Your task to perform on an android device: open app "Calculator" Image 0: 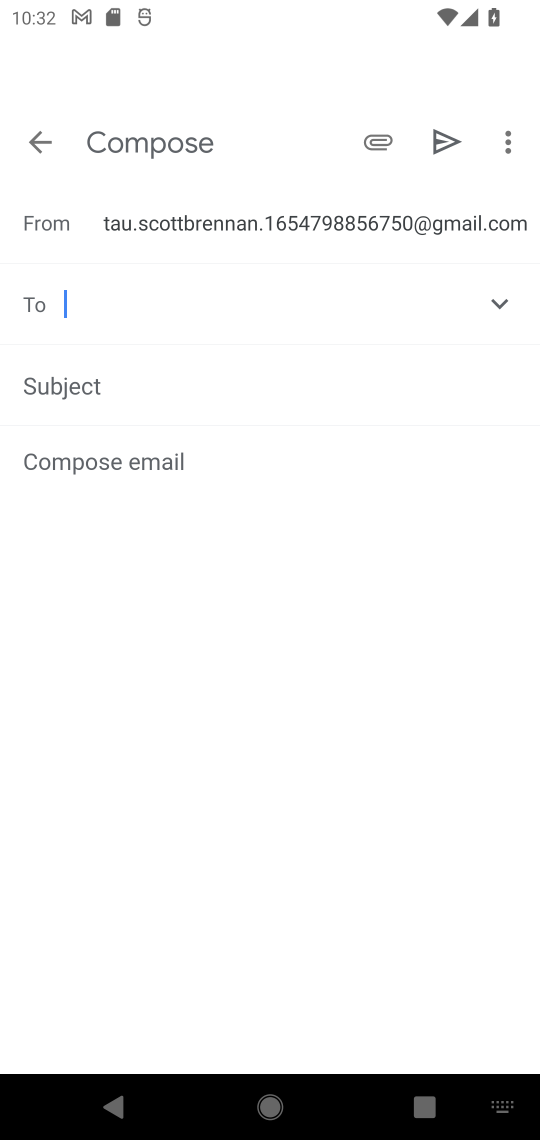
Step 0: press home button
Your task to perform on an android device: open app "Calculator" Image 1: 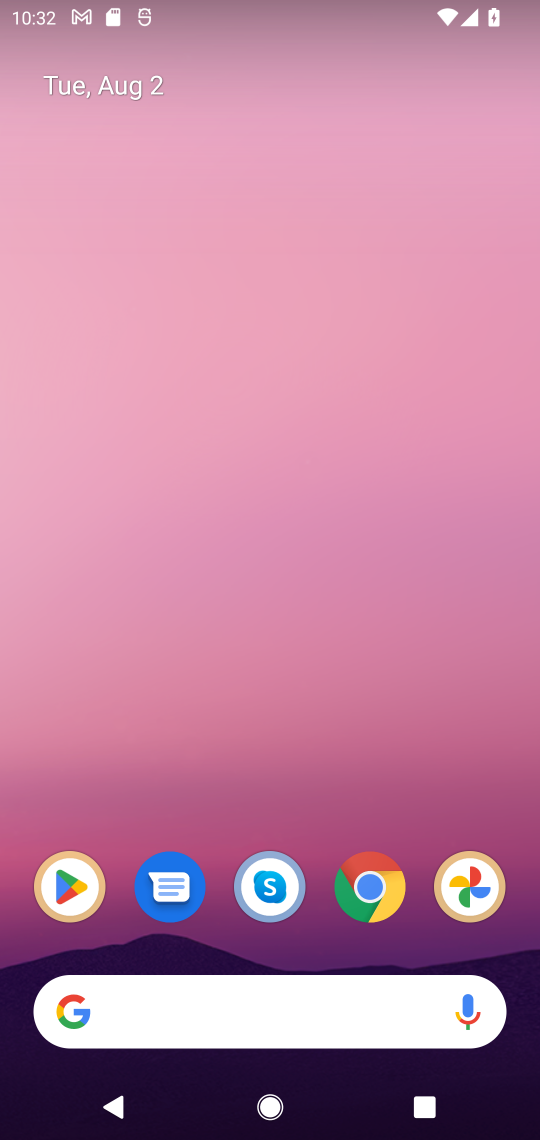
Step 1: drag from (216, 946) to (243, 10)
Your task to perform on an android device: open app "Calculator" Image 2: 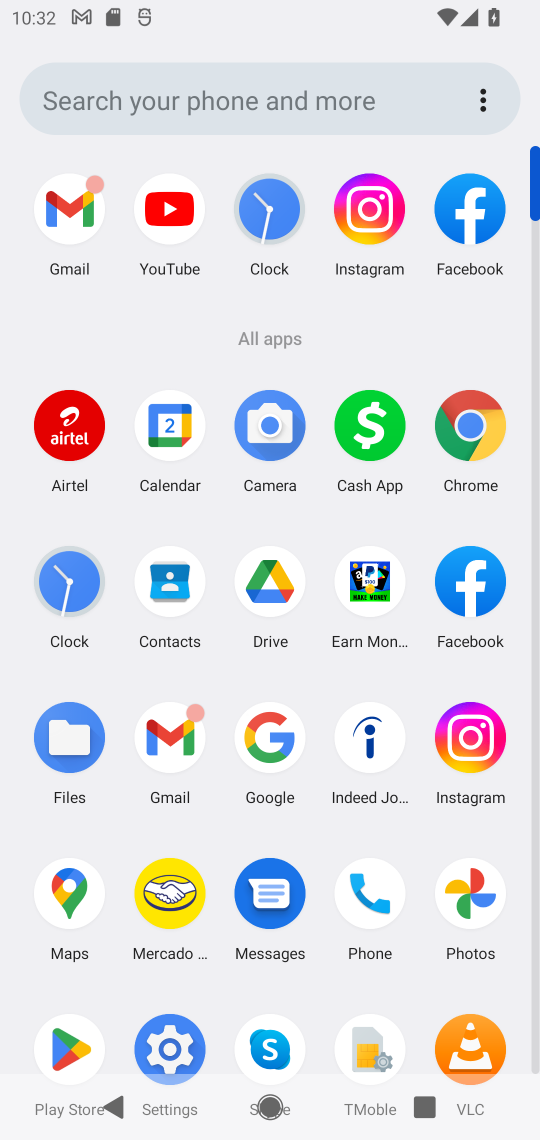
Step 2: click (76, 1052)
Your task to perform on an android device: open app "Calculator" Image 3: 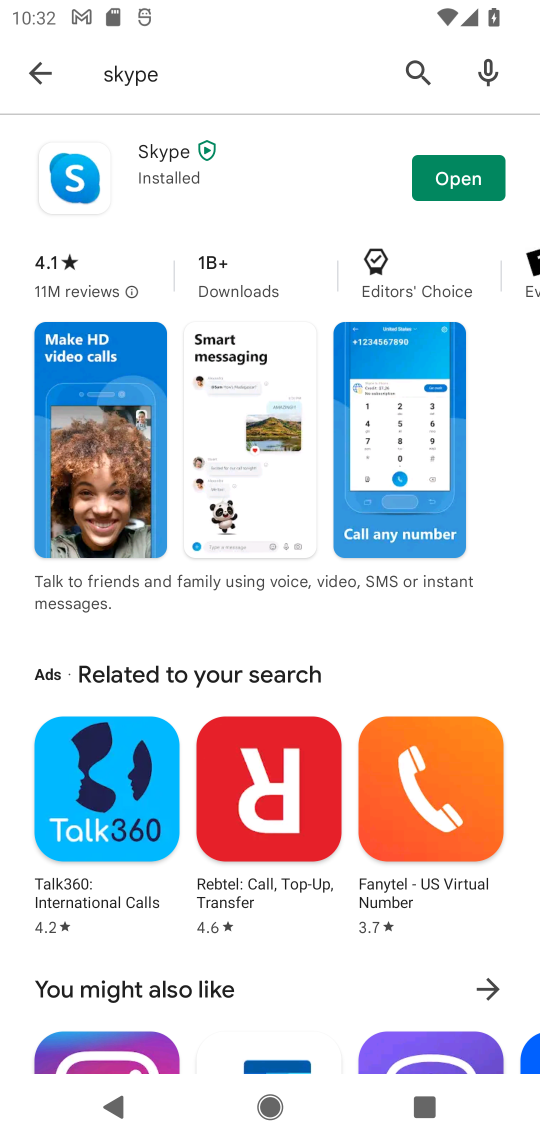
Step 3: click (27, 64)
Your task to perform on an android device: open app "Calculator" Image 4: 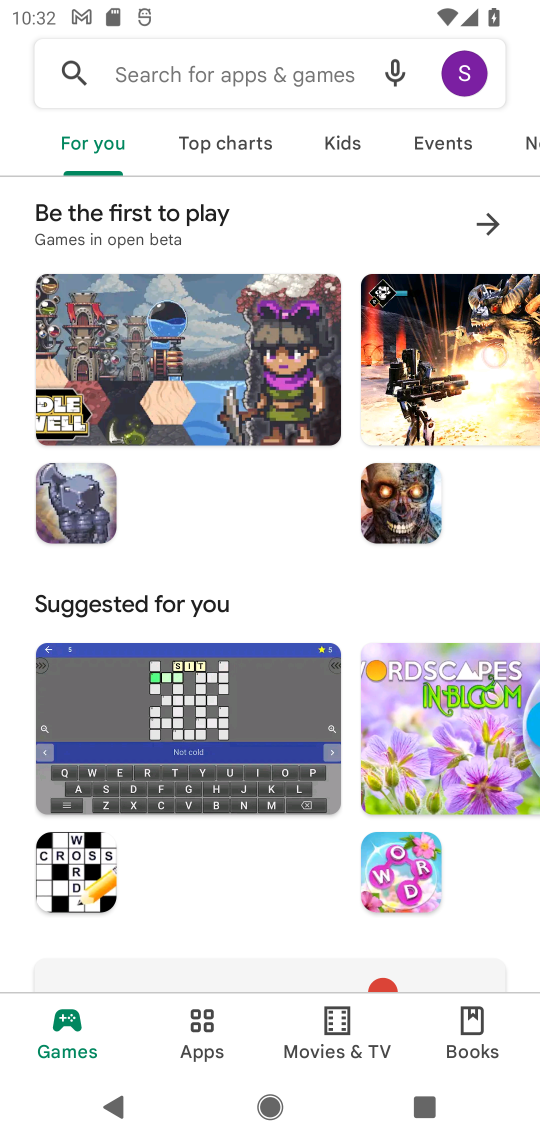
Step 4: click (135, 75)
Your task to perform on an android device: open app "Calculator" Image 5: 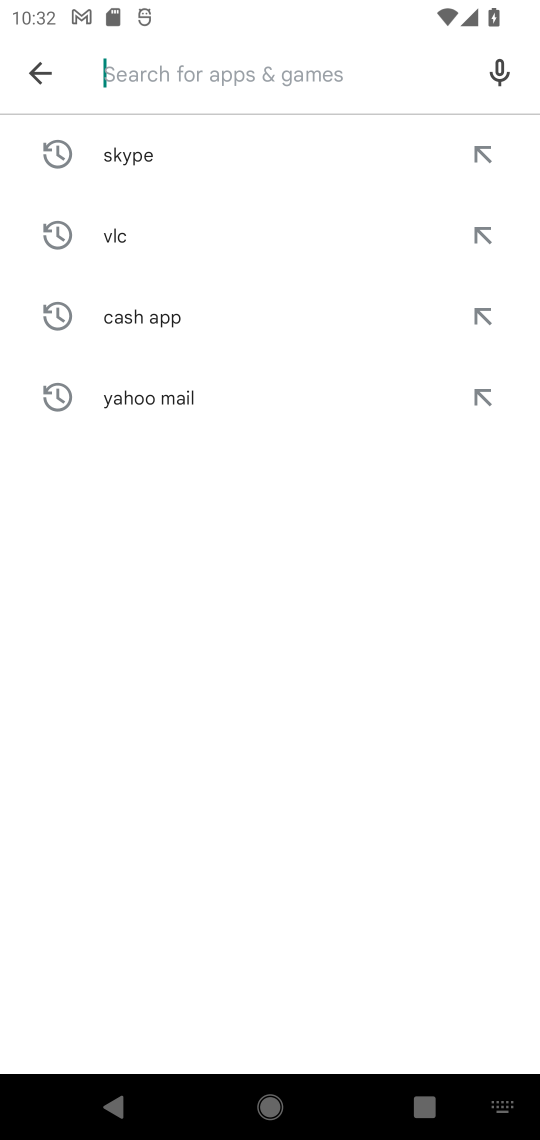
Step 5: click (498, 1072)
Your task to perform on an android device: open app "Calculator" Image 6: 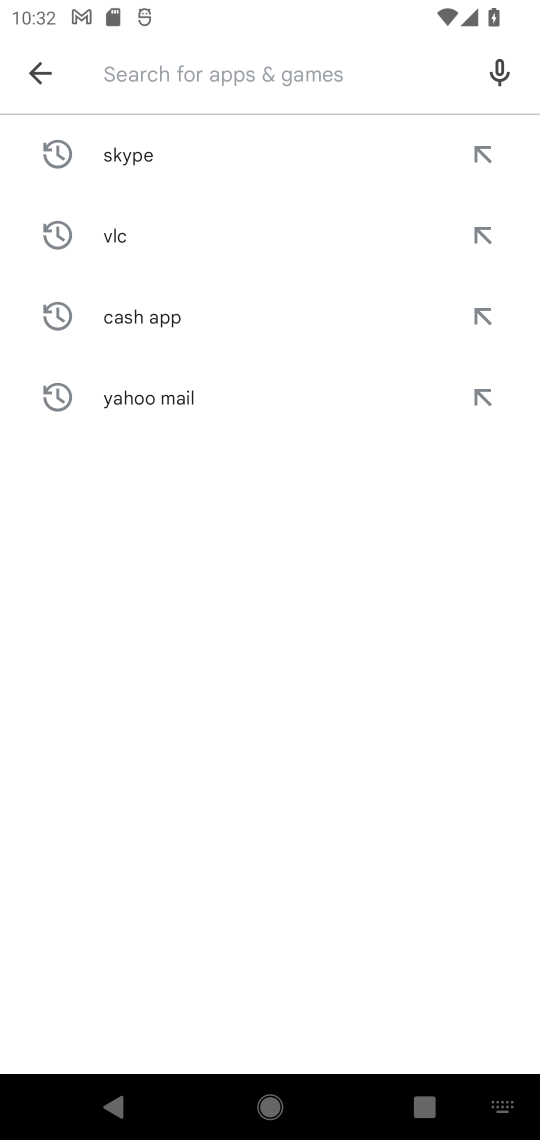
Step 6: type "Calculator"
Your task to perform on an android device: open app "Calculator" Image 7: 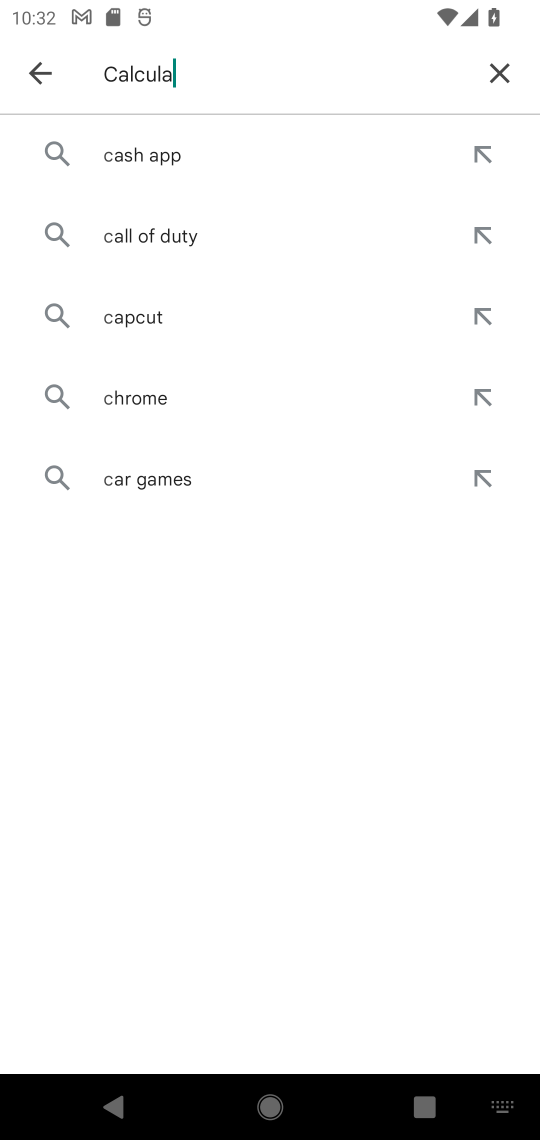
Step 7: type ""
Your task to perform on an android device: open app "Calculator" Image 8: 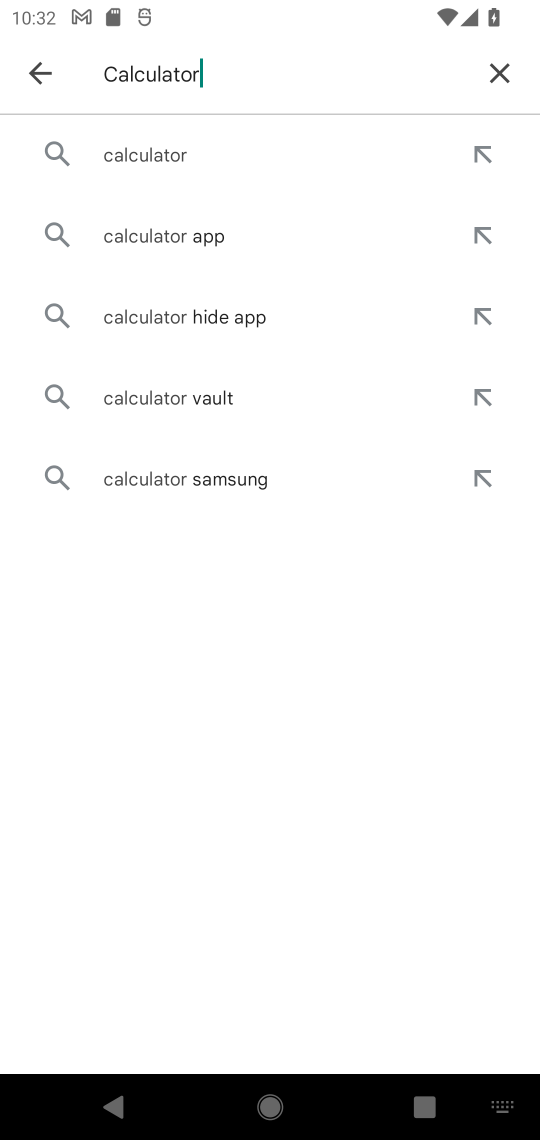
Step 8: drag from (498, 1072) to (480, 966)
Your task to perform on an android device: open app "Calculator" Image 9: 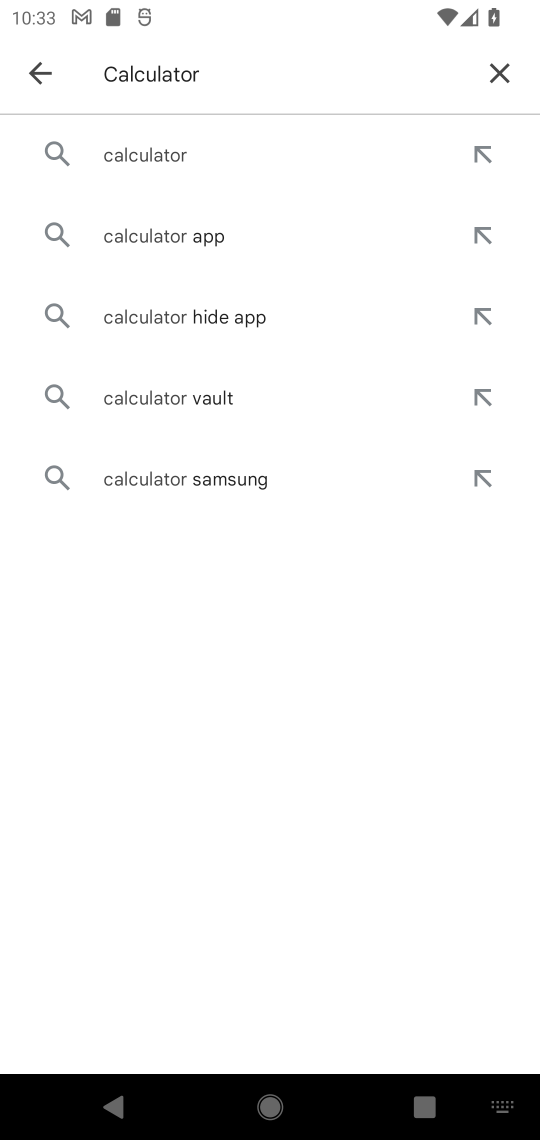
Step 9: click (130, 148)
Your task to perform on an android device: open app "Calculator" Image 10: 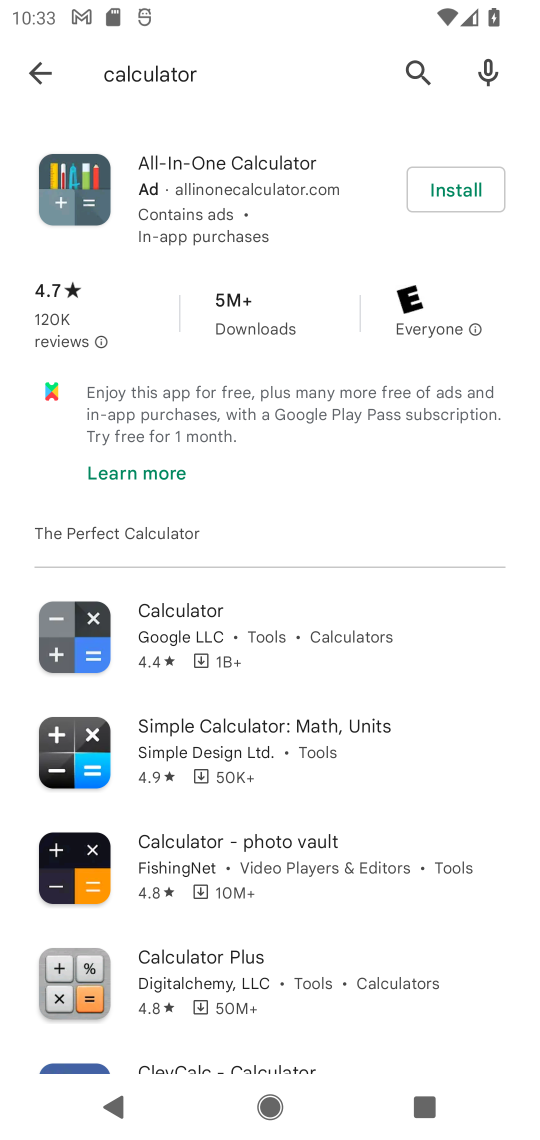
Step 10: task complete